Your task to perform on an android device: refresh tabs in the chrome app Image 0: 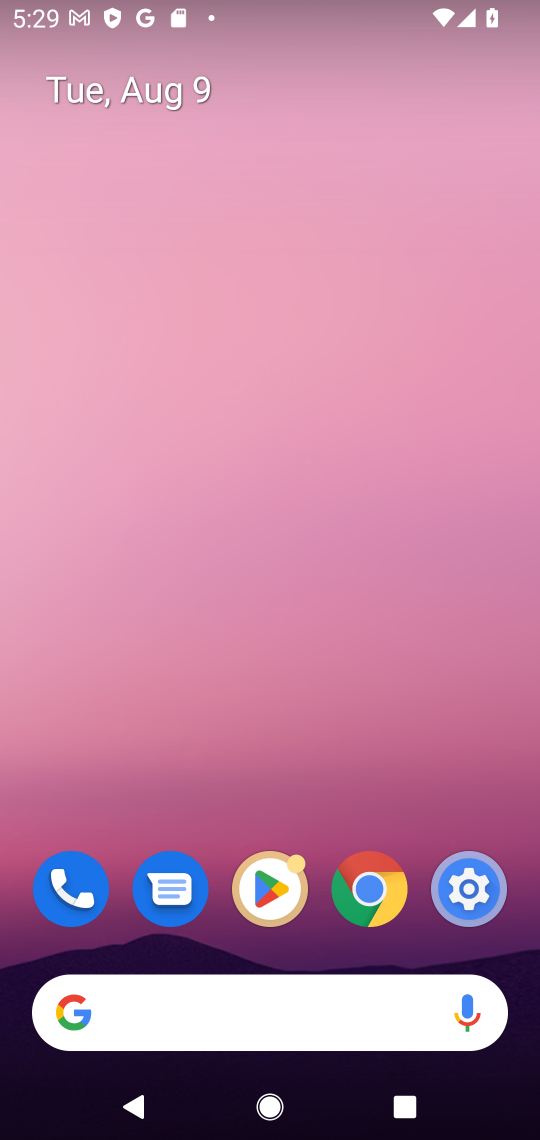
Step 0: click (386, 892)
Your task to perform on an android device: refresh tabs in the chrome app Image 1: 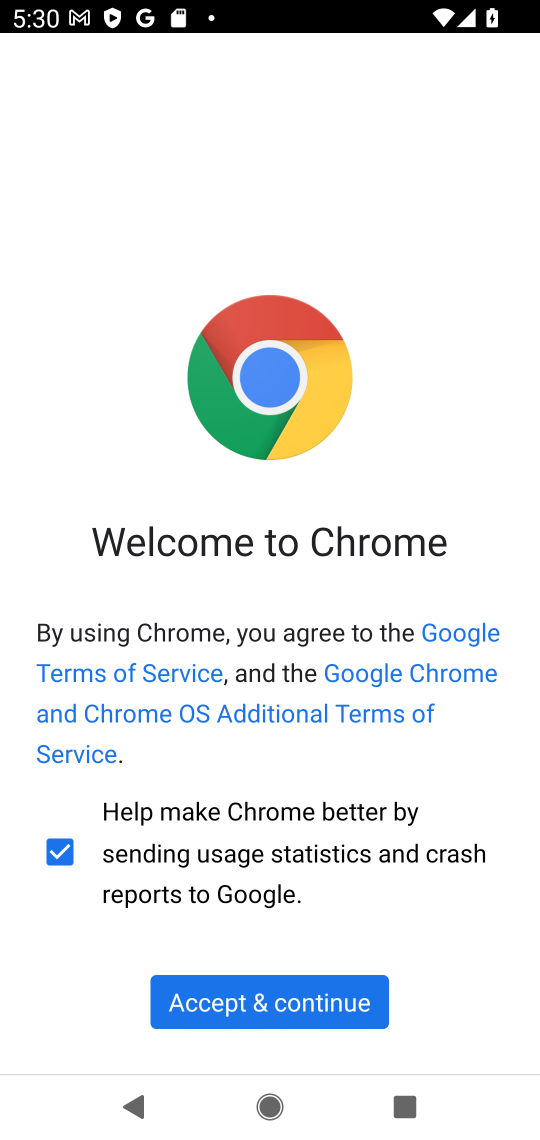
Step 1: click (315, 991)
Your task to perform on an android device: refresh tabs in the chrome app Image 2: 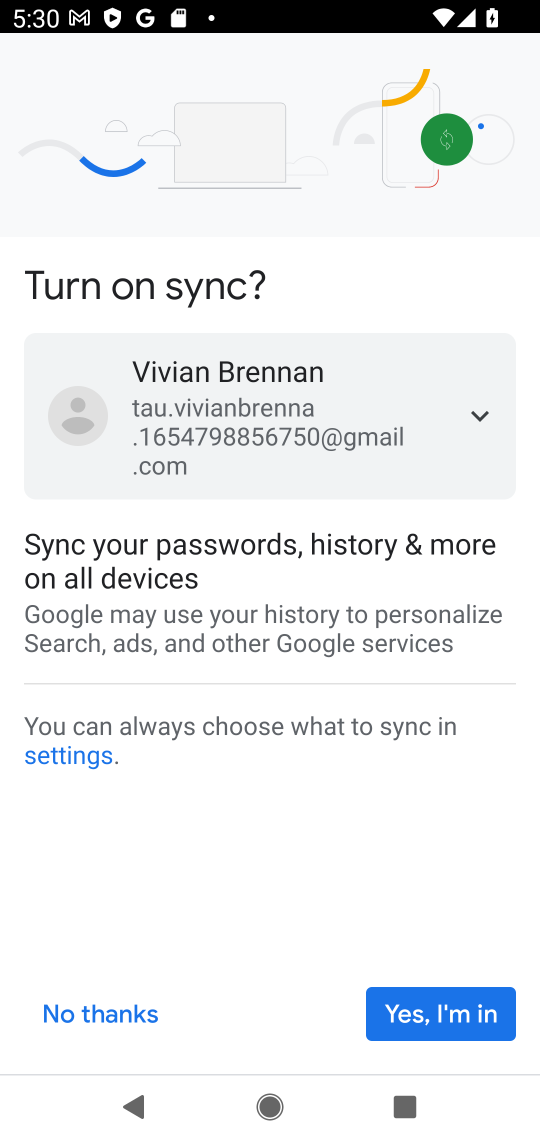
Step 2: click (446, 1009)
Your task to perform on an android device: refresh tabs in the chrome app Image 3: 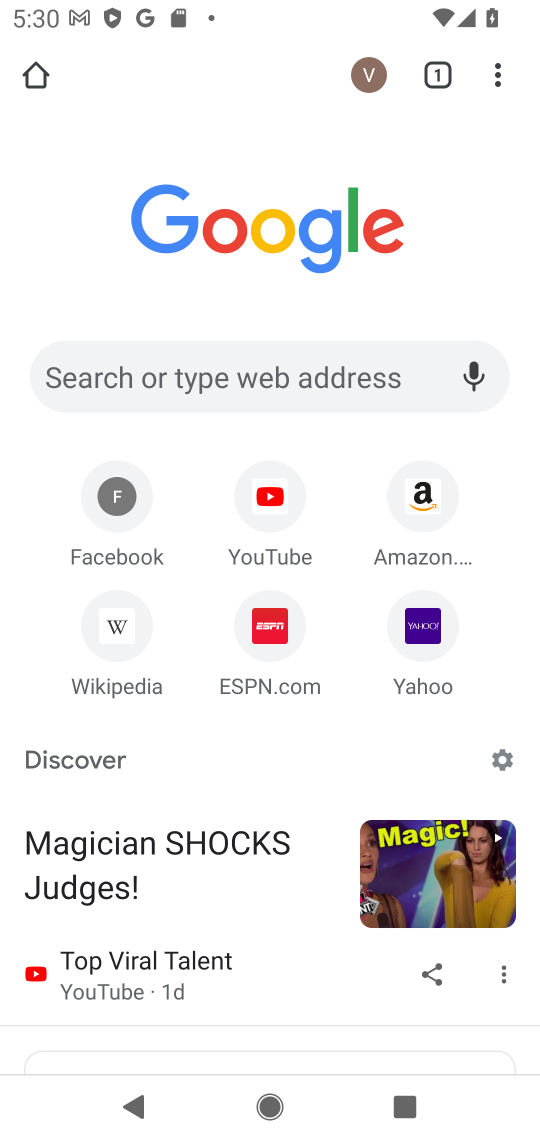
Step 3: click (497, 70)
Your task to perform on an android device: refresh tabs in the chrome app Image 4: 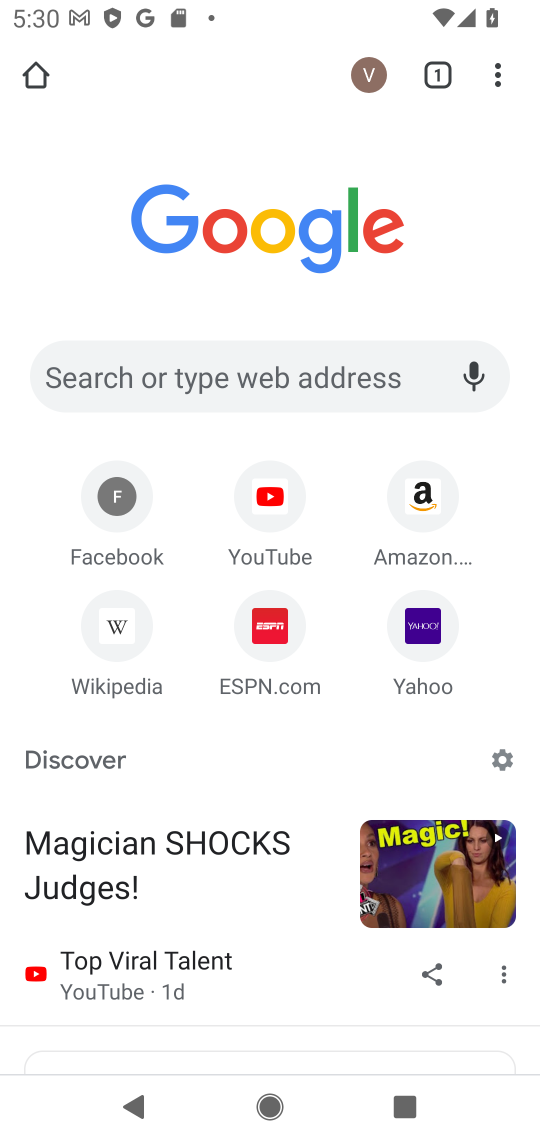
Step 4: task complete